Your task to perform on an android device: Is it going to rain today? Image 0: 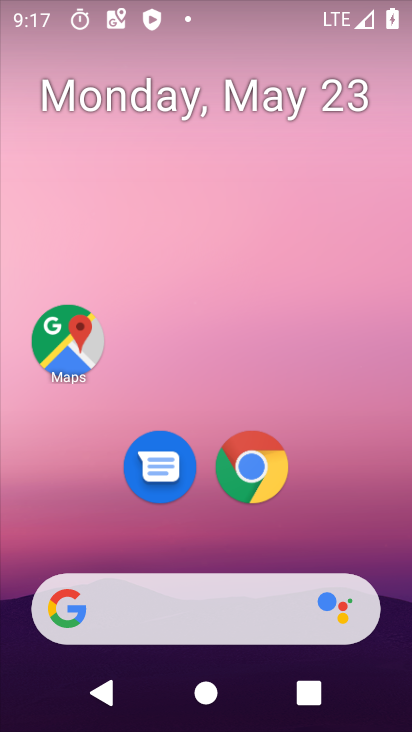
Step 0: drag from (316, 529) to (233, 32)
Your task to perform on an android device: Is it going to rain today? Image 1: 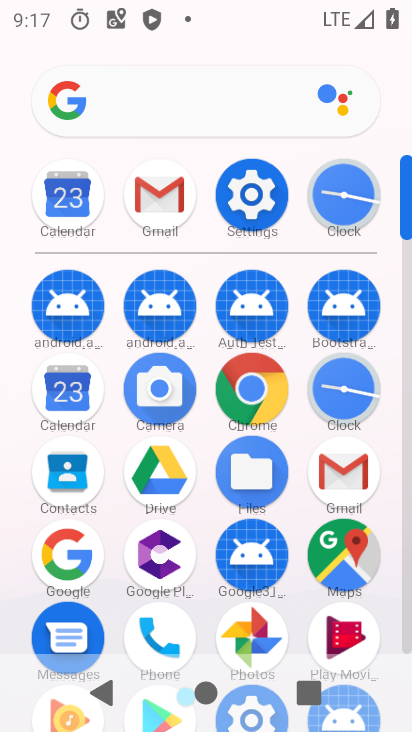
Step 1: click (67, 549)
Your task to perform on an android device: Is it going to rain today? Image 2: 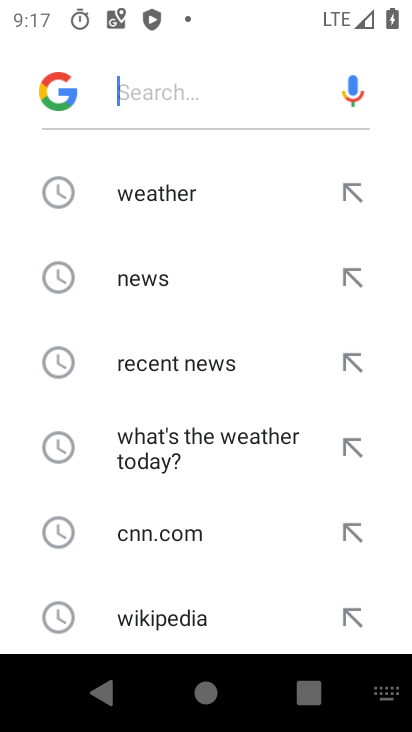
Step 2: click (171, 193)
Your task to perform on an android device: Is it going to rain today? Image 3: 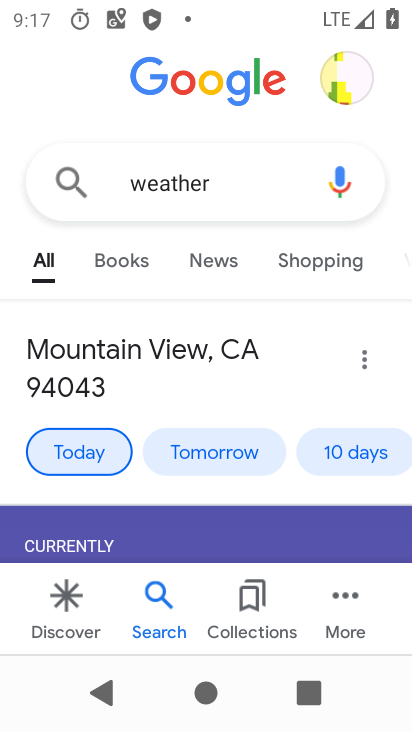
Step 3: task complete